Your task to perform on an android device: delete browsing data in the chrome app Image 0: 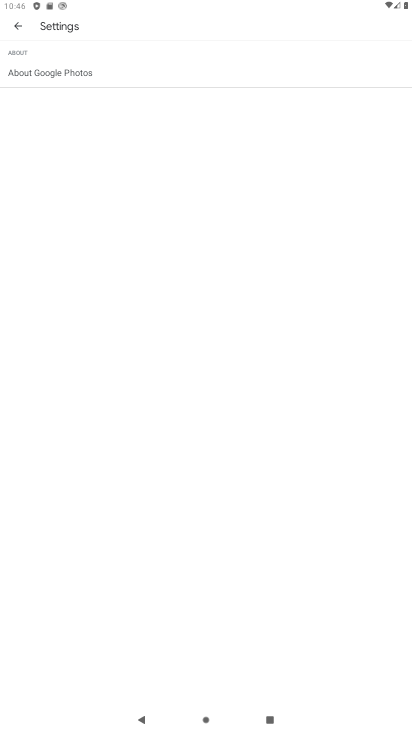
Step 0: task complete